Your task to perform on an android device: show emergency info Image 0: 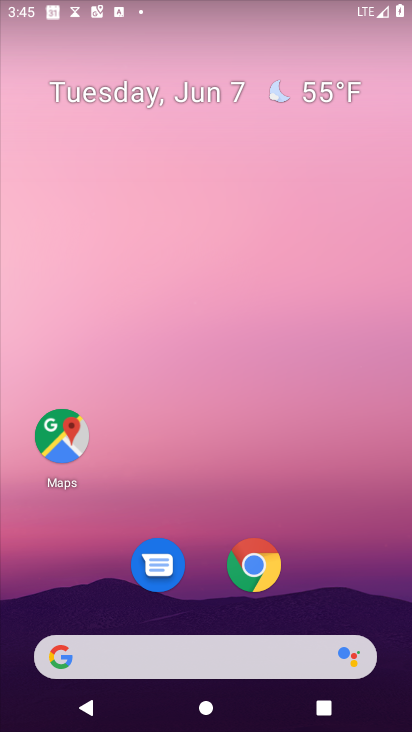
Step 0: drag from (268, 660) to (338, 0)
Your task to perform on an android device: show emergency info Image 1: 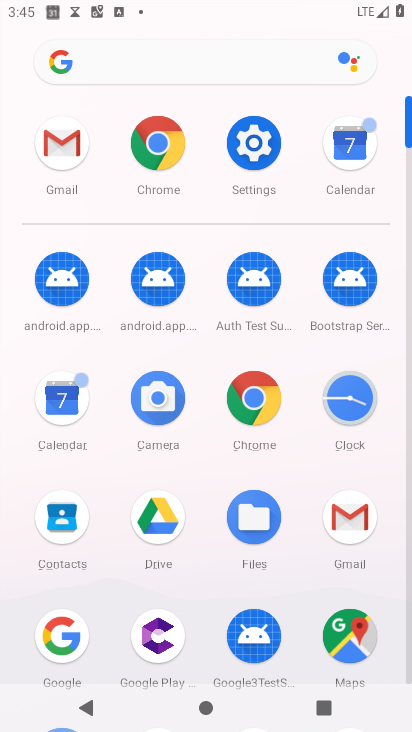
Step 1: click (250, 138)
Your task to perform on an android device: show emergency info Image 2: 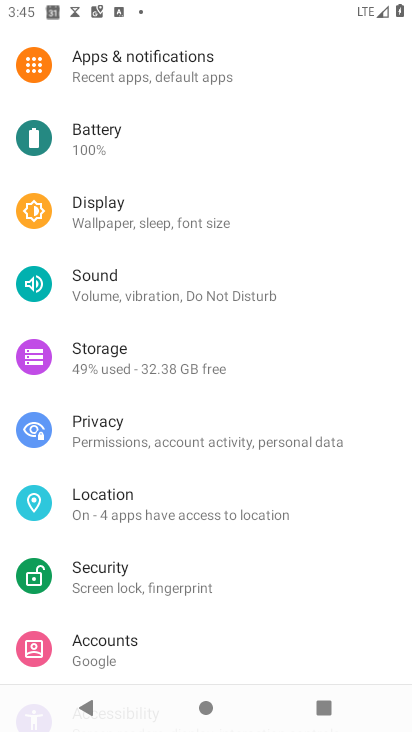
Step 2: drag from (224, 655) to (263, 207)
Your task to perform on an android device: show emergency info Image 3: 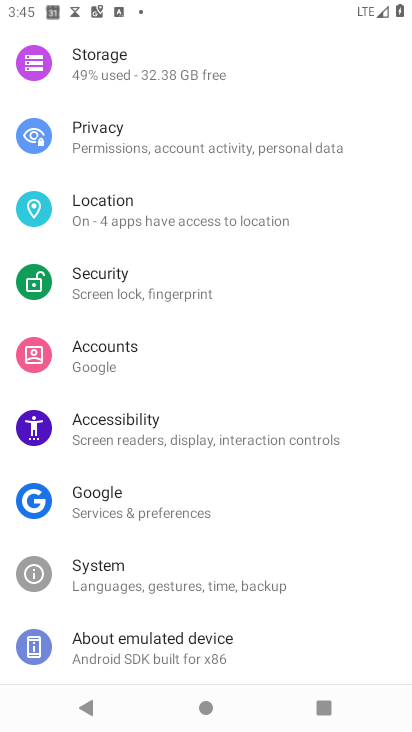
Step 3: click (176, 657)
Your task to perform on an android device: show emergency info Image 4: 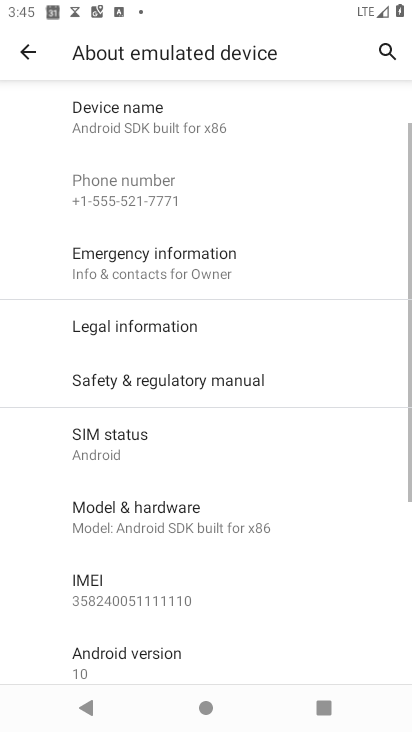
Step 4: click (220, 261)
Your task to perform on an android device: show emergency info Image 5: 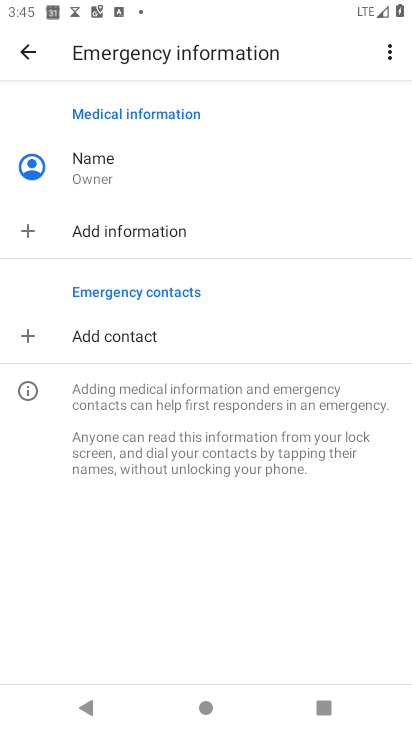
Step 5: task complete